Your task to perform on an android device: Open Amazon Image 0: 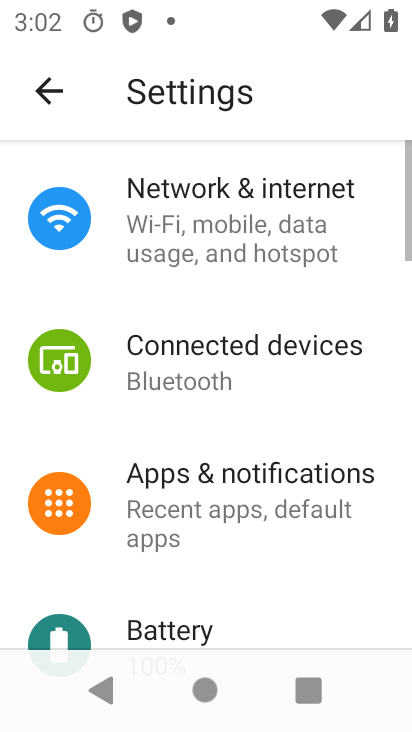
Step 0: press home button
Your task to perform on an android device: Open Amazon Image 1: 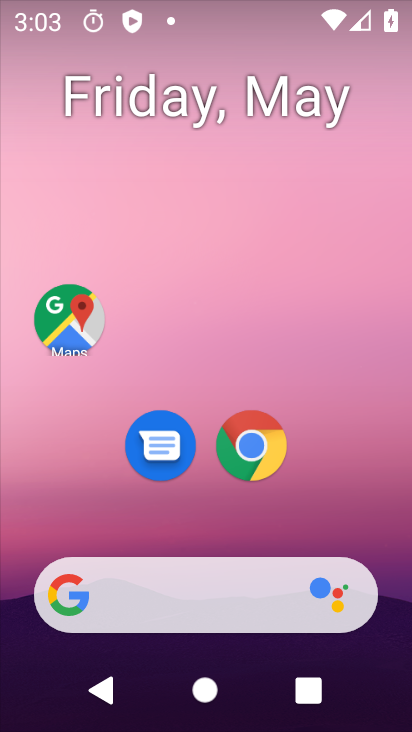
Step 1: drag from (218, 553) to (339, 0)
Your task to perform on an android device: Open Amazon Image 2: 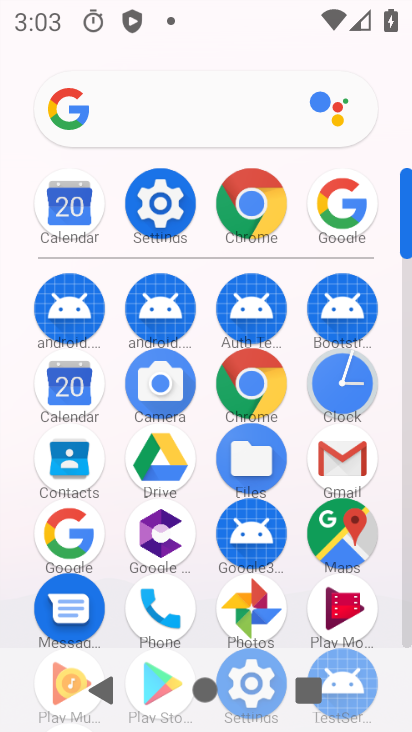
Step 2: click (257, 224)
Your task to perform on an android device: Open Amazon Image 3: 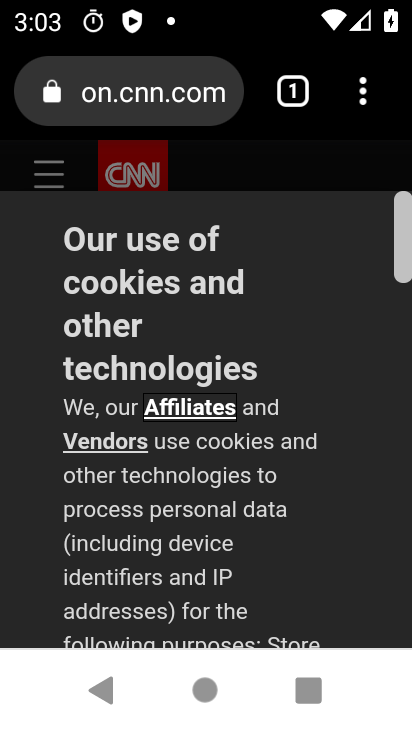
Step 3: click (181, 111)
Your task to perform on an android device: Open Amazon Image 4: 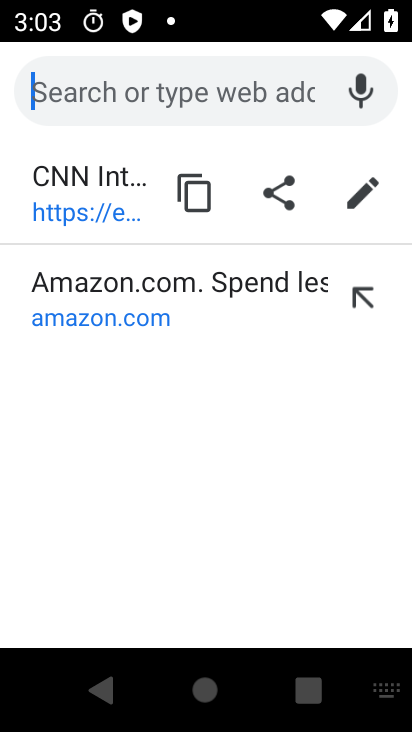
Step 4: click (168, 291)
Your task to perform on an android device: Open Amazon Image 5: 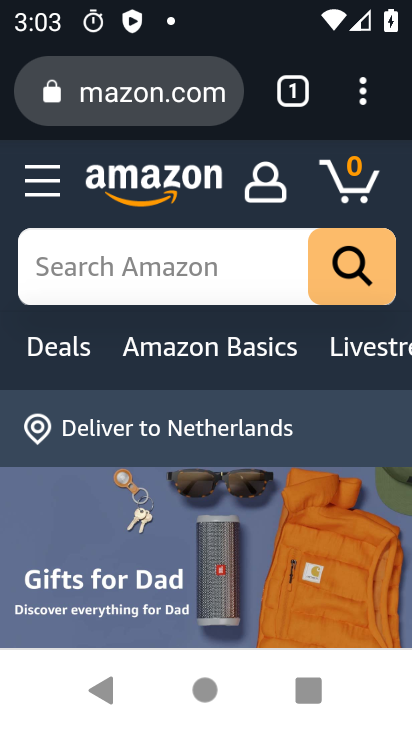
Step 5: task complete